Your task to perform on an android device: Open the calendar and show me this week's events? Image 0: 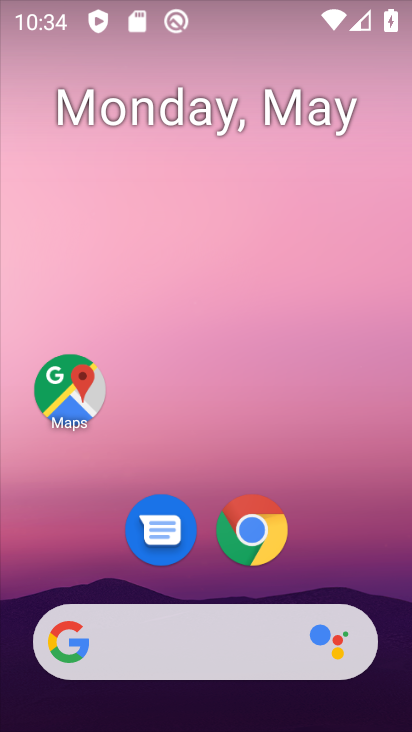
Step 0: drag from (328, 576) to (307, 240)
Your task to perform on an android device: Open the calendar and show me this week's events? Image 1: 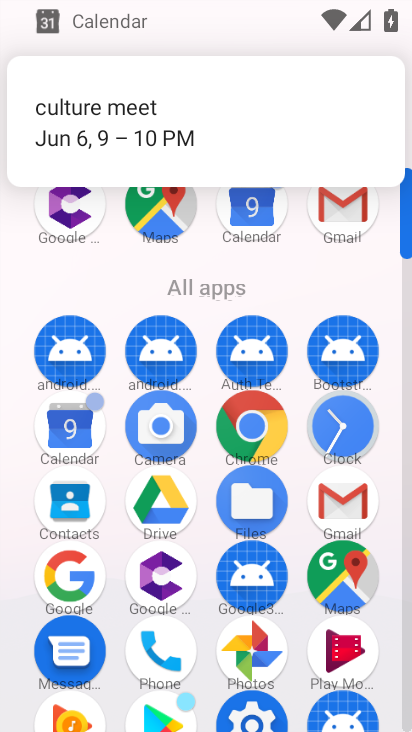
Step 1: click (70, 425)
Your task to perform on an android device: Open the calendar and show me this week's events? Image 2: 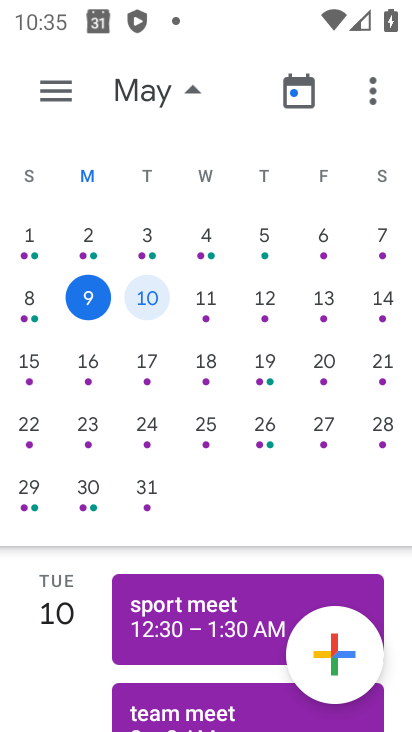
Step 2: click (304, 85)
Your task to perform on an android device: Open the calendar and show me this week's events? Image 3: 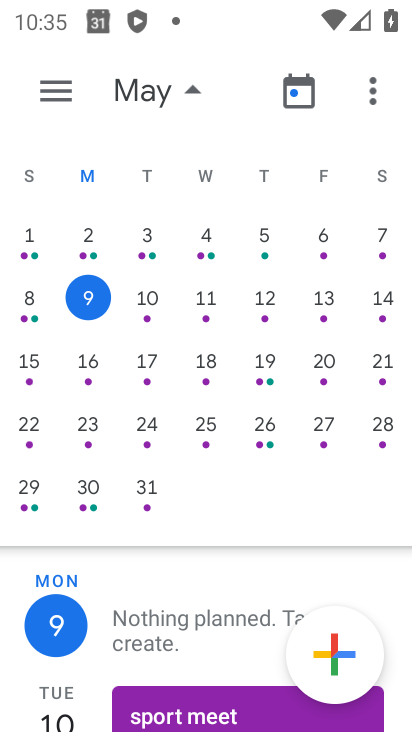
Step 3: click (381, 297)
Your task to perform on an android device: Open the calendar and show me this week's events? Image 4: 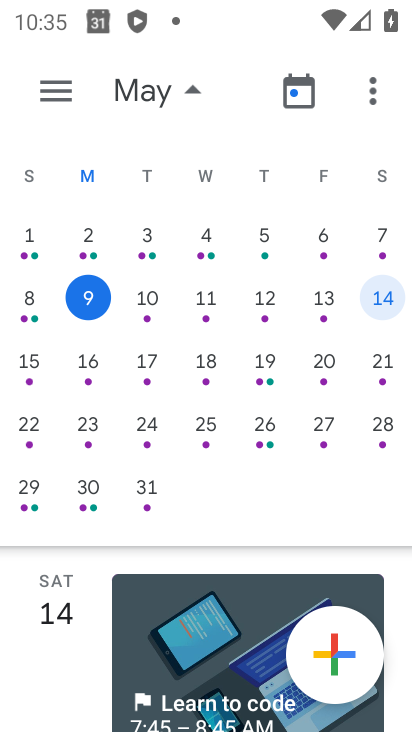
Step 4: click (55, 75)
Your task to perform on an android device: Open the calendar and show me this week's events? Image 5: 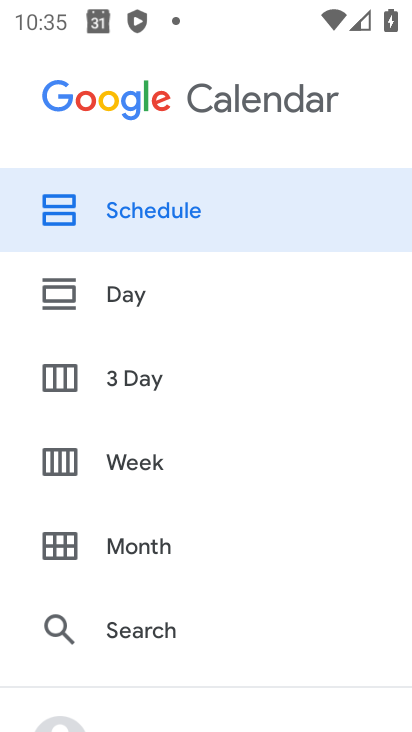
Step 5: click (153, 463)
Your task to perform on an android device: Open the calendar and show me this week's events? Image 6: 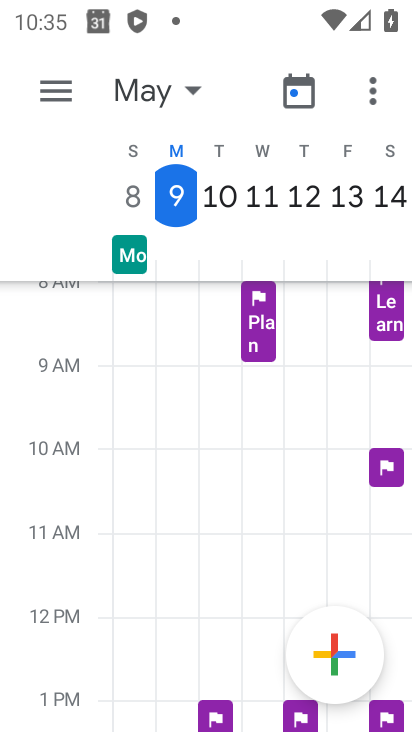
Step 6: task complete